Your task to perform on an android device: Open Yahoo.com Image 0: 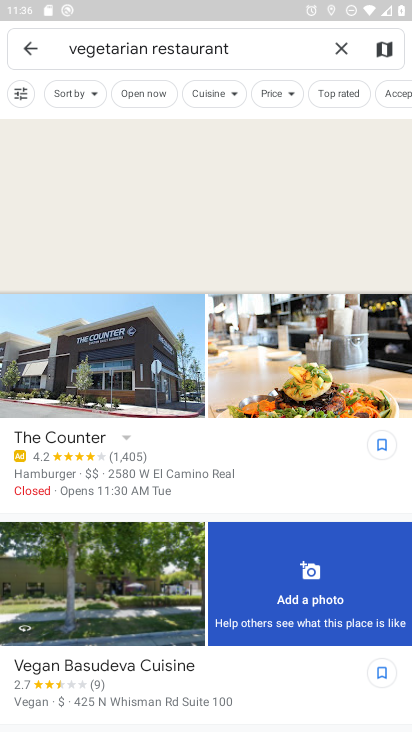
Step 0: press home button
Your task to perform on an android device: Open Yahoo.com Image 1: 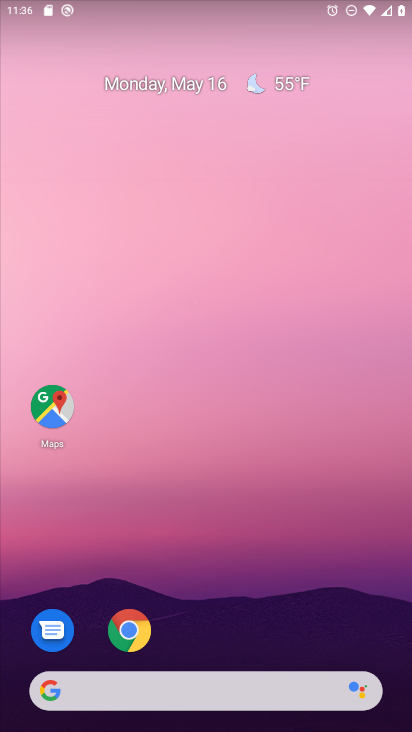
Step 1: click (146, 631)
Your task to perform on an android device: Open Yahoo.com Image 2: 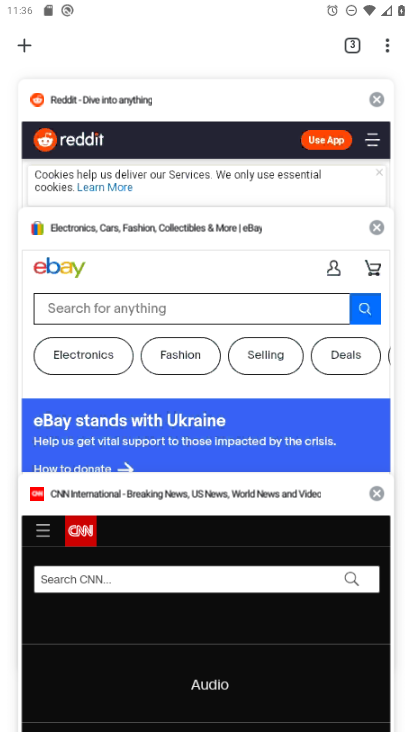
Step 2: click (28, 43)
Your task to perform on an android device: Open Yahoo.com Image 3: 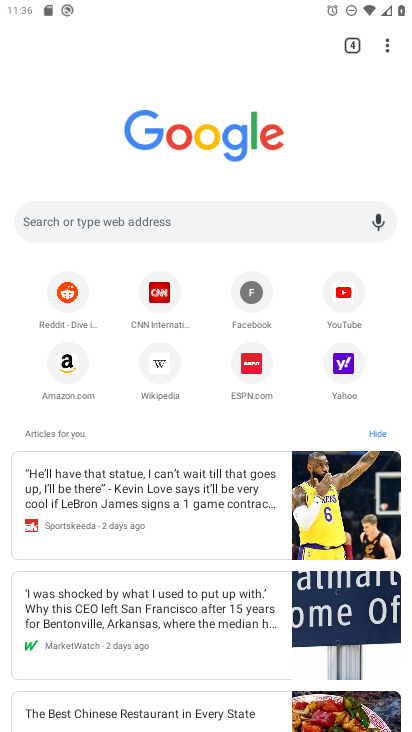
Step 3: click (332, 364)
Your task to perform on an android device: Open Yahoo.com Image 4: 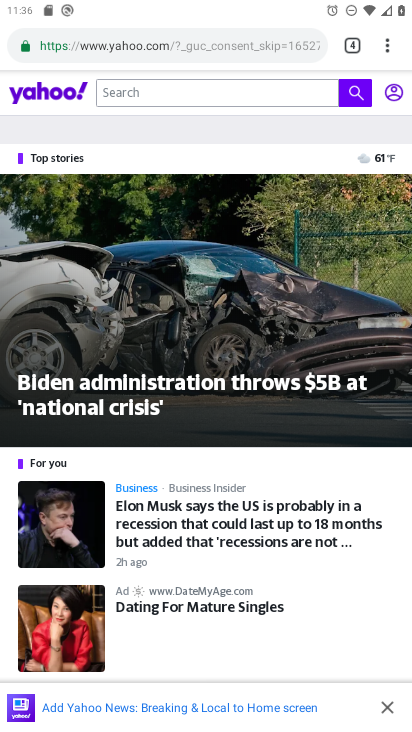
Step 4: task complete